Your task to perform on an android device: change the clock display to digital Image 0: 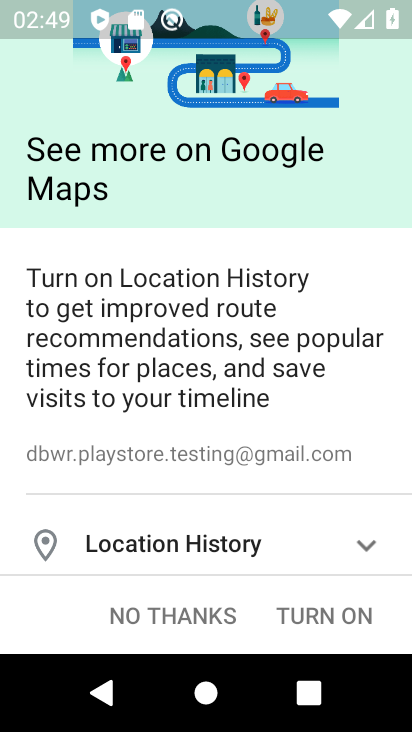
Step 0: press home button
Your task to perform on an android device: change the clock display to digital Image 1: 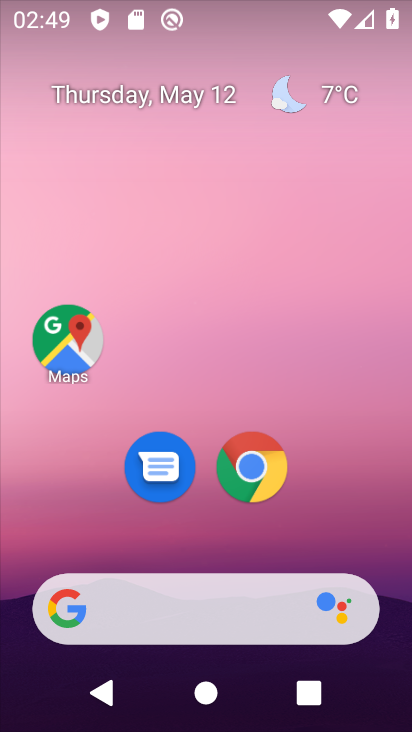
Step 1: drag from (337, 563) to (363, 1)
Your task to perform on an android device: change the clock display to digital Image 2: 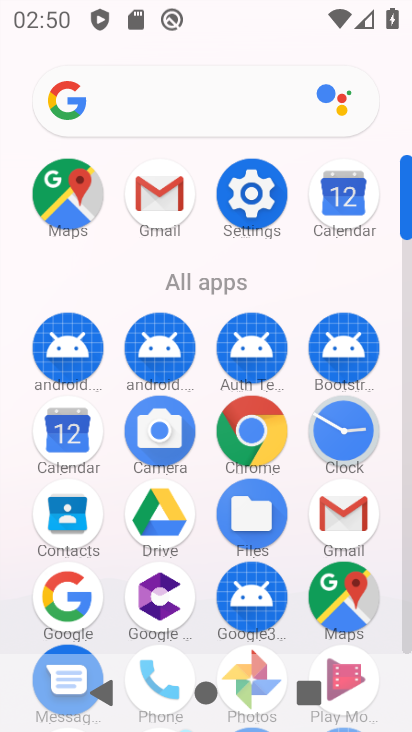
Step 2: click (336, 437)
Your task to perform on an android device: change the clock display to digital Image 3: 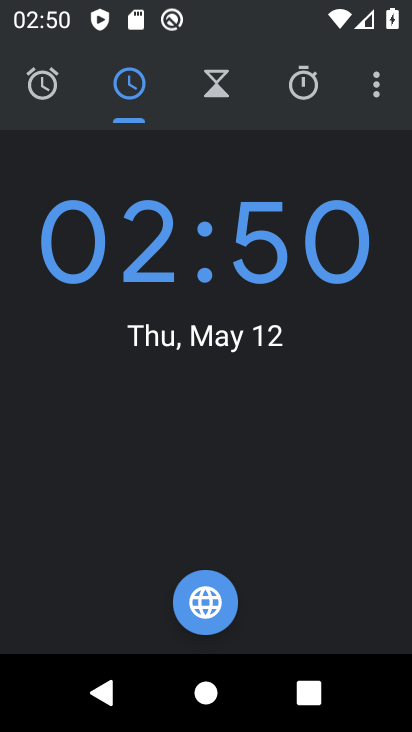
Step 3: click (384, 94)
Your task to perform on an android device: change the clock display to digital Image 4: 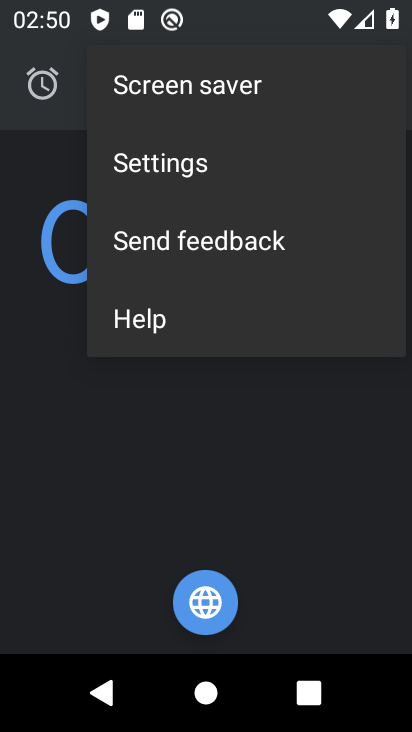
Step 4: click (243, 157)
Your task to perform on an android device: change the clock display to digital Image 5: 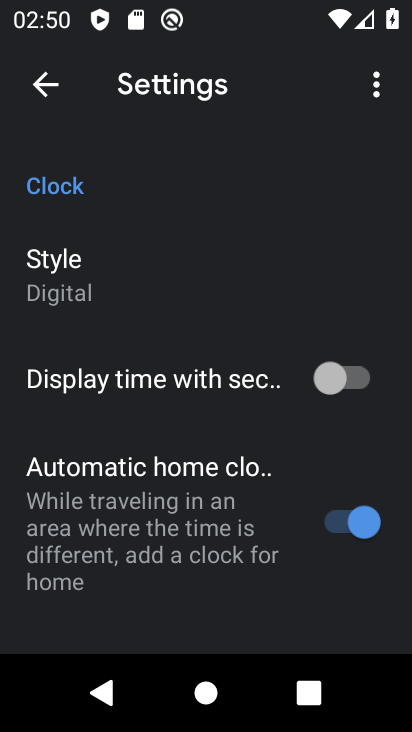
Step 5: task complete